Your task to perform on an android device: Open notification settings Image 0: 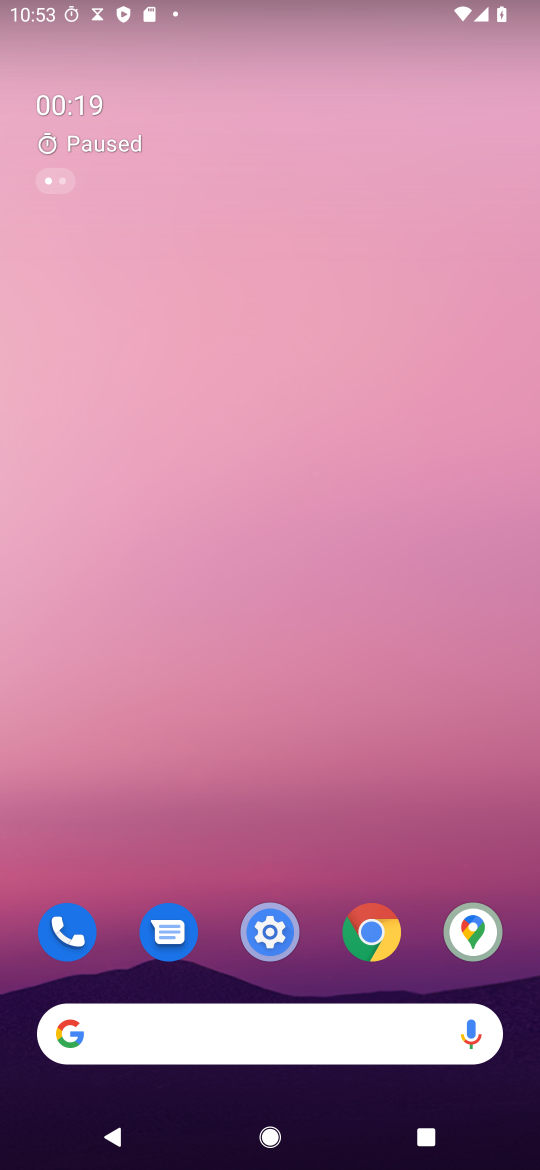
Step 0: click (271, 932)
Your task to perform on an android device: Open notification settings Image 1: 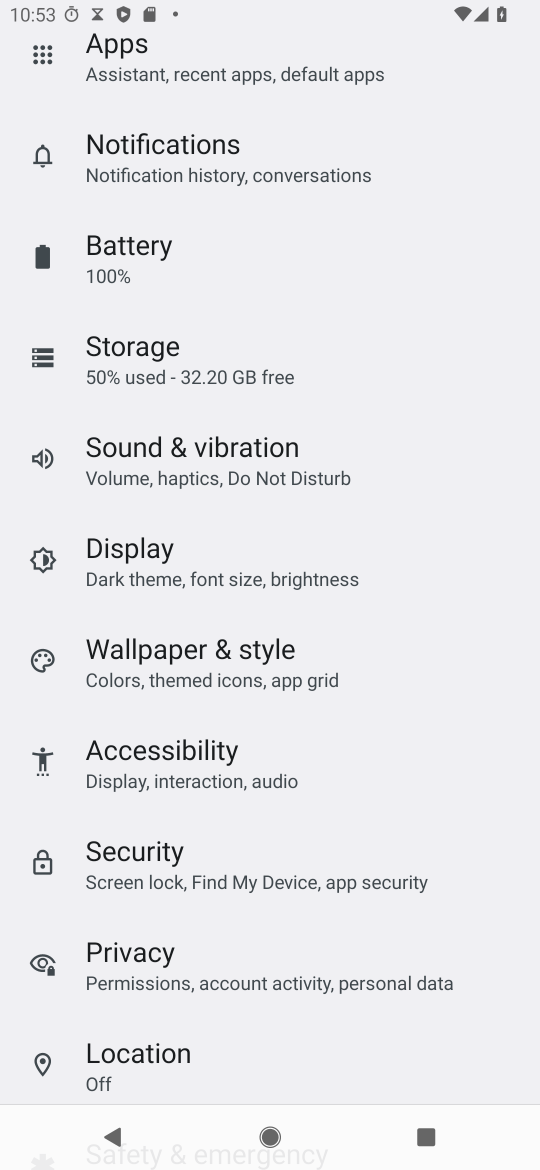
Step 1: drag from (308, 269) to (270, 489)
Your task to perform on an android device: Open notification settings Image 2: 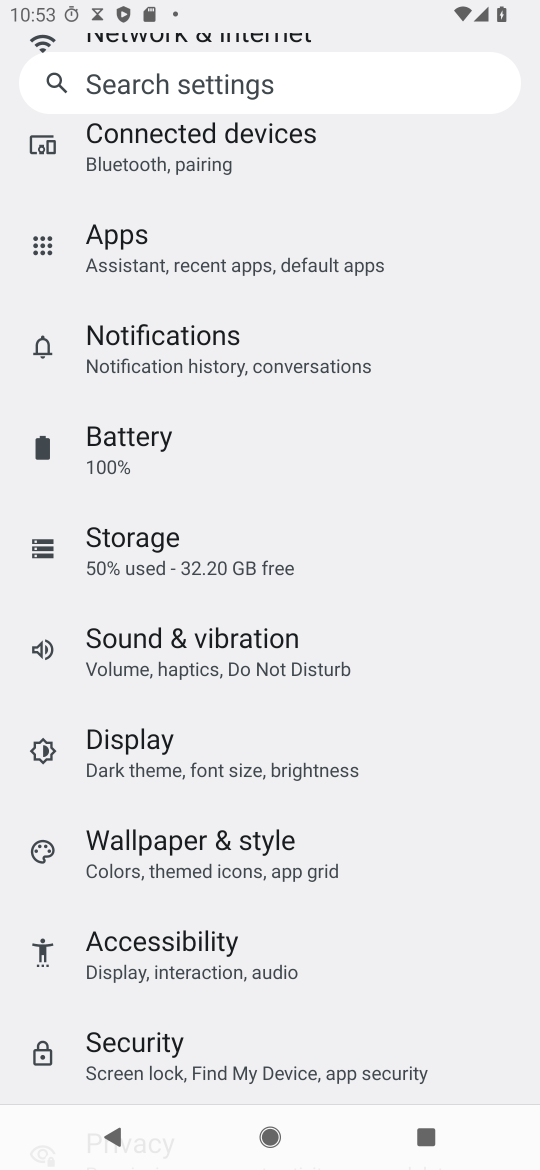
Step 2: click (208, 362)
Your task to perform on an android device: Open notification settings Image 3: 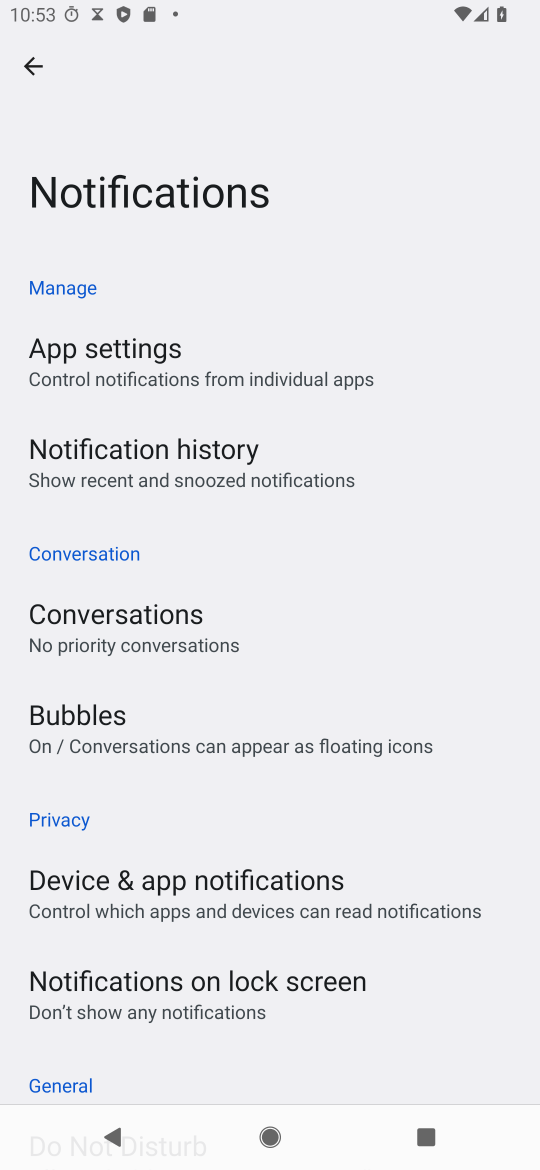
Step 3: task complete